Your task to perform on an android device: Check the settings for the Google Play Movies app Image 0: 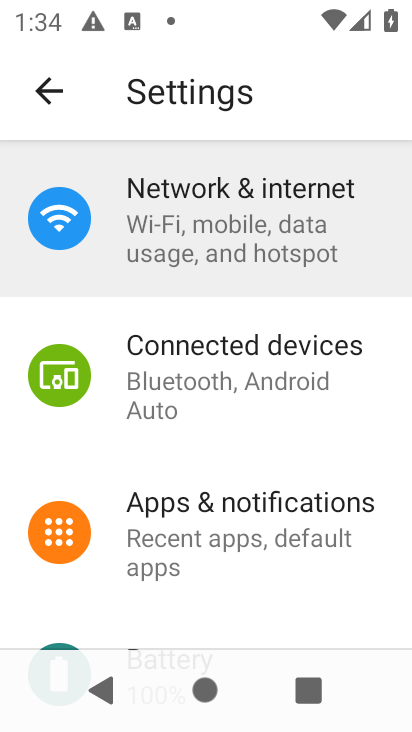
Step 0: drag from (284, 558) to (261, 217)
Your task to perform on an android device: Check the settings for the Google Play Movies app Image 1: 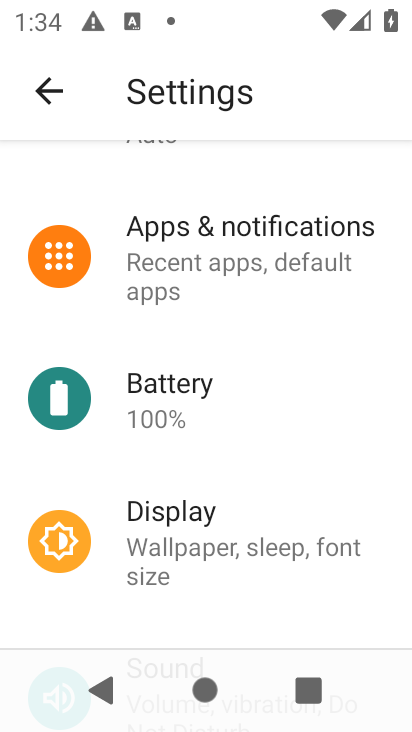
Step 1: press home button
Your task to perform on an android device: Check the settings for the Google Play Movies app Image 2: 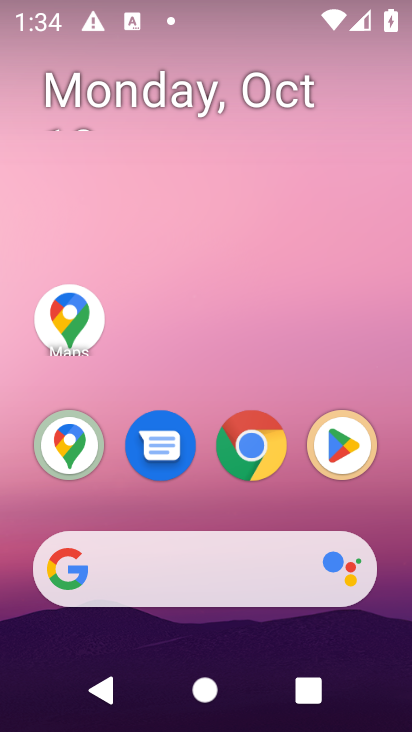
Step 2: drag from (77, 575) to (103, 136)
Your task to perform on an android device: Check the settings for the Google Play Movies app Image 3: 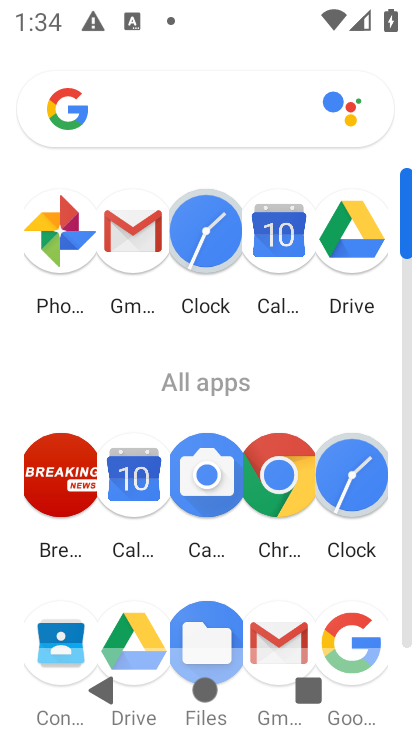
Step 3: drag from (196, 640) to (171, 367)
Your task to perform on an android device: Check the settings for the Google Play Movies app Image 4: 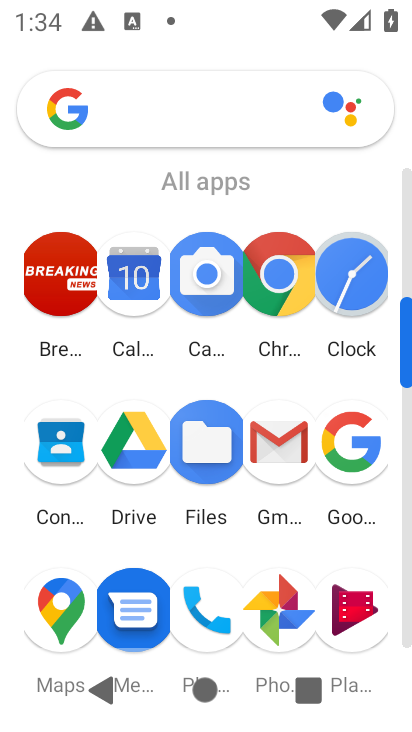
Step 4: click (356, 609)
Your task to perform on an android device: Check the settings for the Google Play Movies app Image 5: 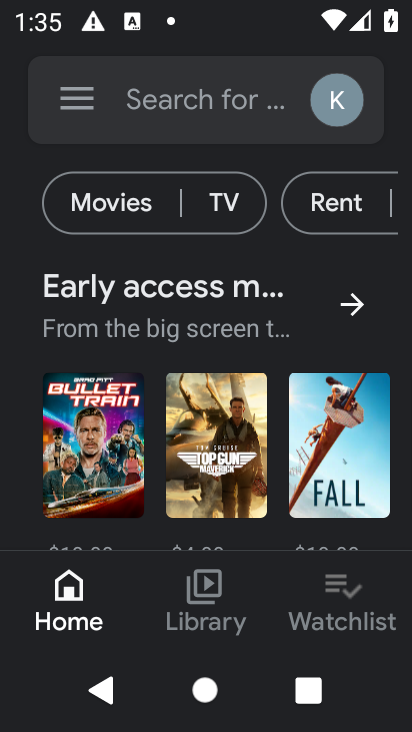
Step 5: click (75, 100)
Your task to perform on an android device: Check the settings for the Google Play Movies app Image 6: 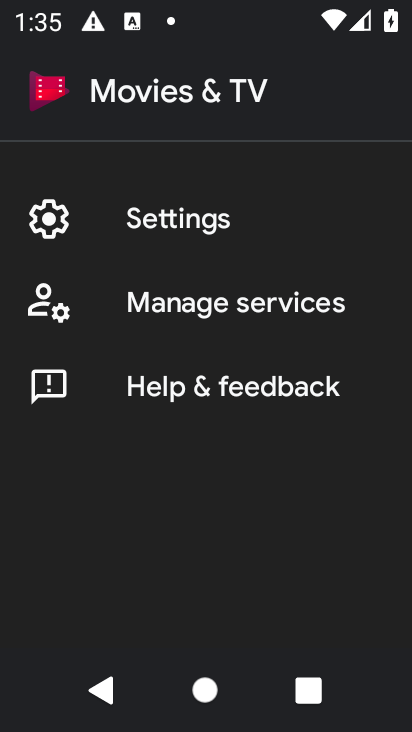
Step 6: click (117, 228)
Your task to perform on an android device: Check the settings for the Google Play Movies app Image 7: 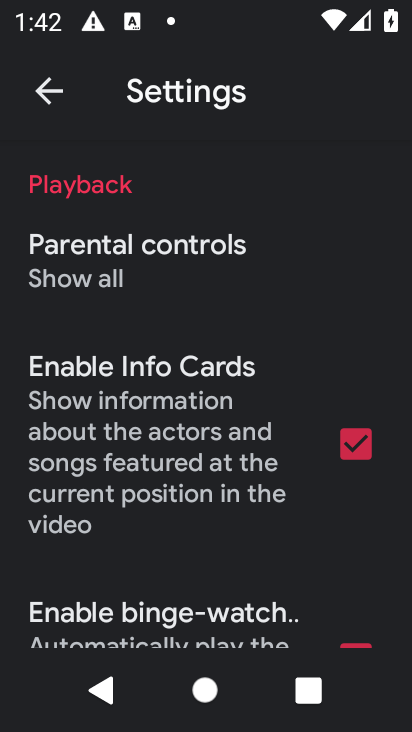
Step 7: task complete